Your task to perform on an android device: turn off picture-in-picture Image 0: 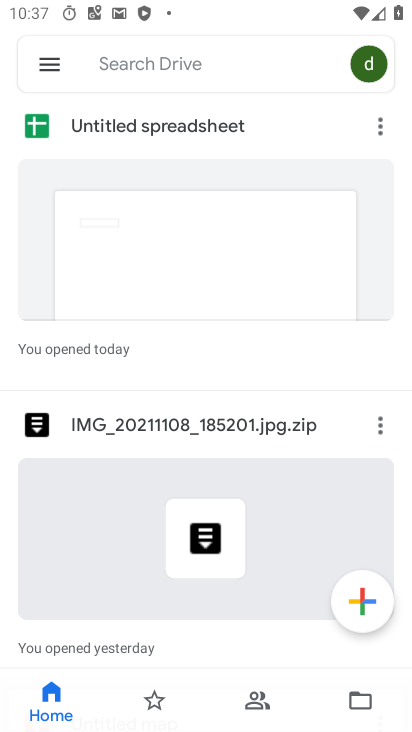
Step 0: press back button
Your task to perform on an android device: turn off picture-in-picture Image 1: 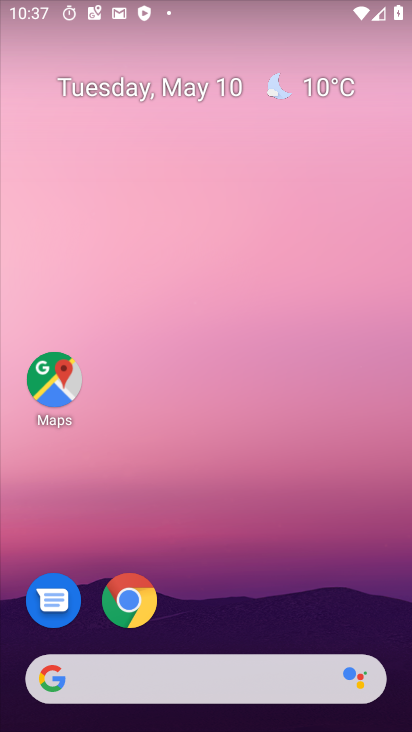
Step 1: drag from (244, 558) to (233, 65)
Your task to perform on an android device: turn off picture-in-picture Image 2: 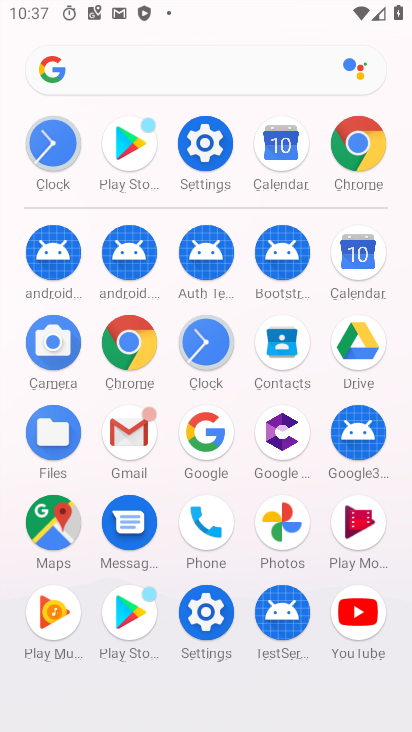
Step 2: drag from (16, 559) to (16, 277)
Your task to perform on an android device: turn off picture-in-picture Image 3: 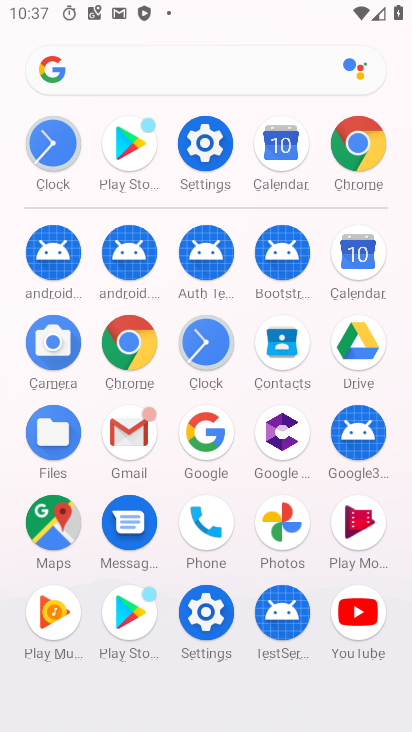
Step 3: click (206, 609)
Your task to perform on an android device: turn off picture-in-picture Image 4: 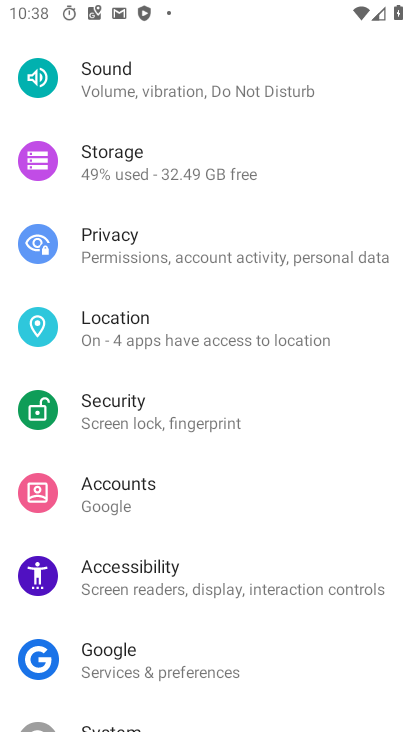
Step 4: drag from (292, 483) to (287, 107)
Your task to perform on an android device: turn off picture-in-picture Image 5: 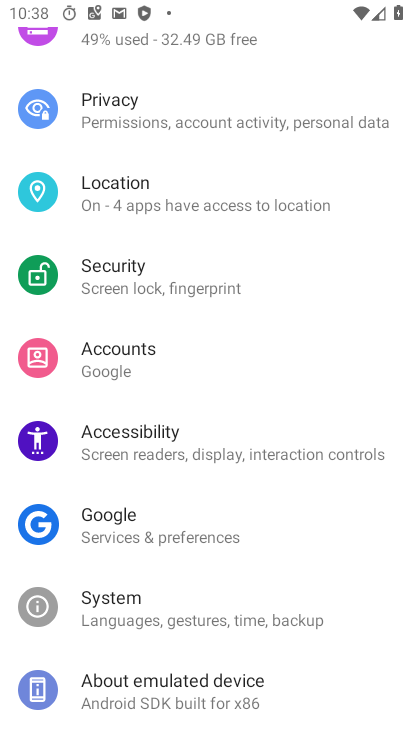
Step 5: drag from (251, 179) to (250, 600)
Your task to perform on an android device: turn off picture-in-picture Image 6: 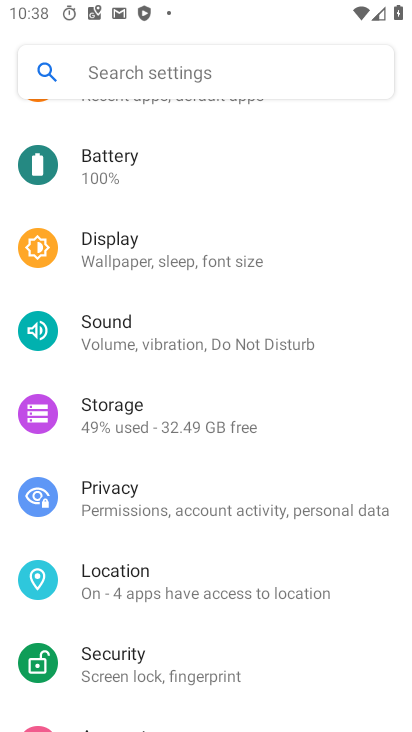
Step 6: drag from (226, 171) to (238, 485)
Your task to perform on an android device: turn off picture-in-picture Image 7: 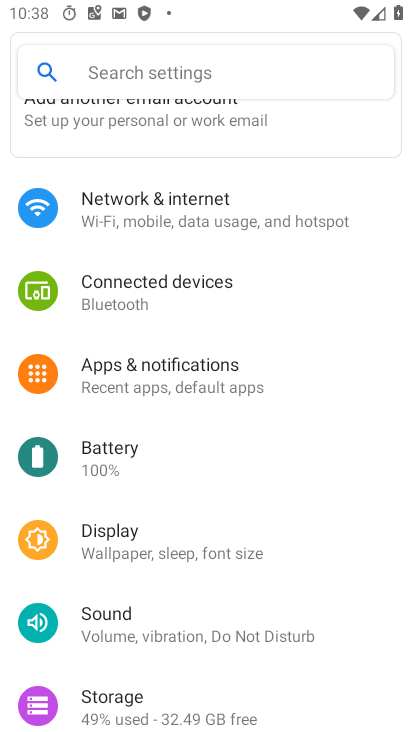
Step 7: drag from (235, 517) to (261, 124)
Your task to perform on an android device: turn off picture-in-picture Image 8: 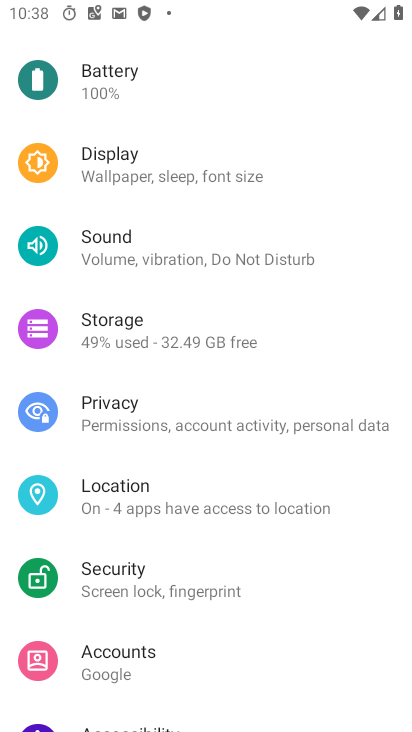
Step 8: drag from (277, 534) to (278, 62)
Your task to perform on an android device: turn off picture-in-picture Image 9: 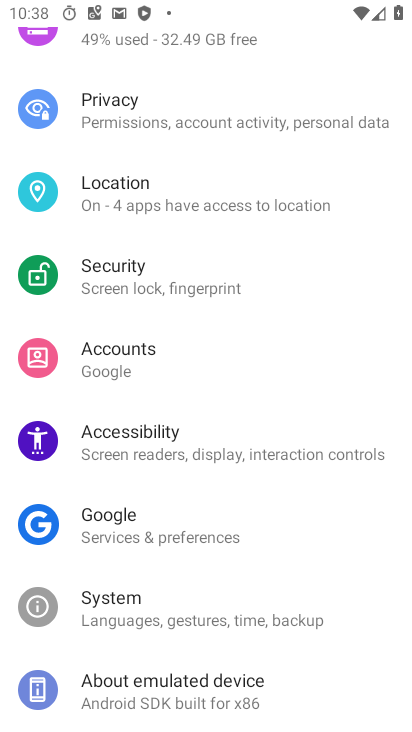
Step 9: drag from (230, 157) to (235, 604)
Your task to perform on an android device: turn off picture-in-picture Image 10: 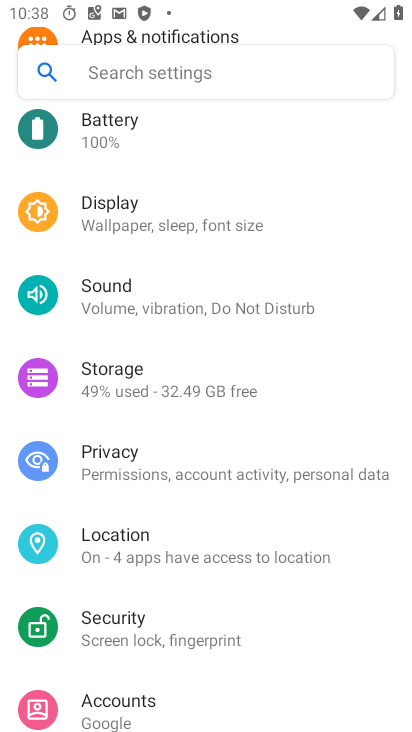
Step 10: drag from (208, 220) to (213, 599)
Your task to perform on an android device: turn off picture-in-picture Image 11: 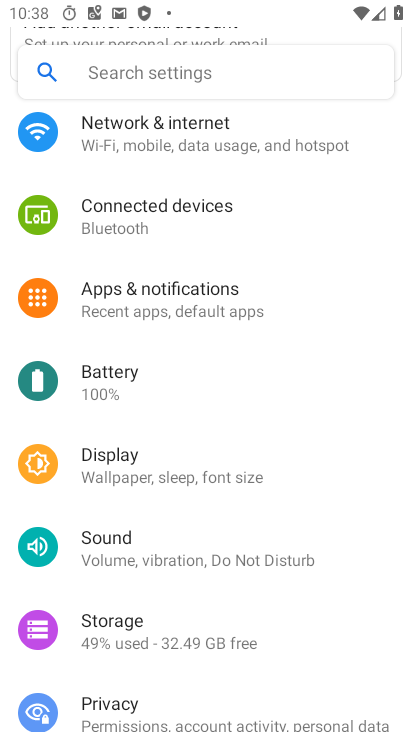
Step 11: click (196, 292)
Your task to perform on an android device: turn off picture-in-picture Image 12: 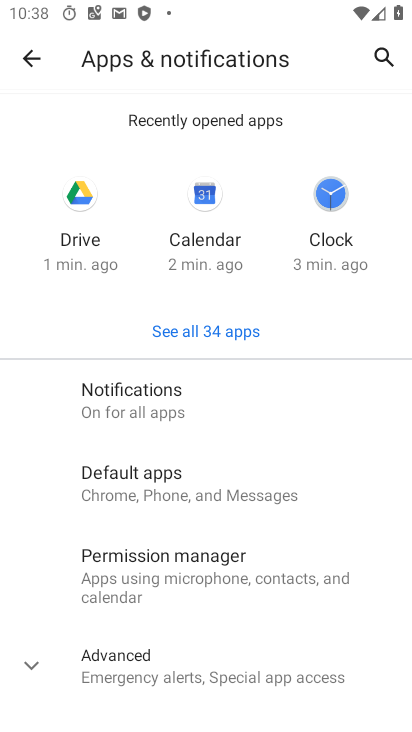
Step 12: click (52, 659)
Your task to perform on an android device: turn off picture-in-picture Image 13: 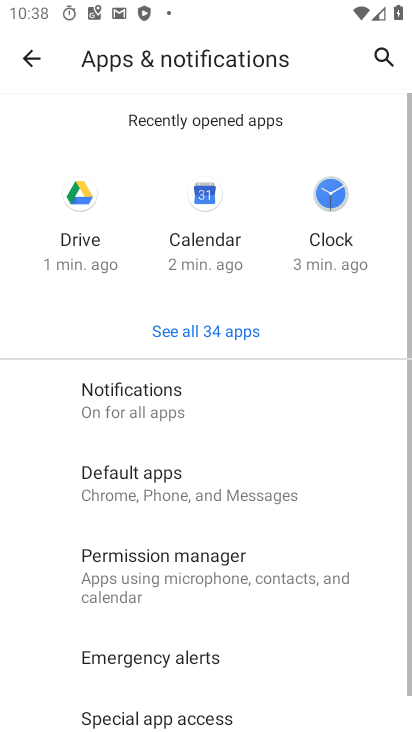
Step 13: drag from (331, 632) to (320, 250)
Your task to perform on an android device: turn off picture-in-picture Image 14: 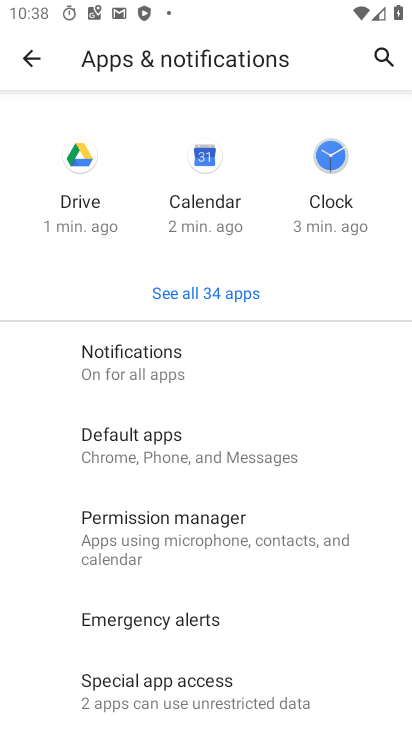
Step 14: click (157, 688)
Your task to perform on an android device: turn off picture-in-picture Image 15: 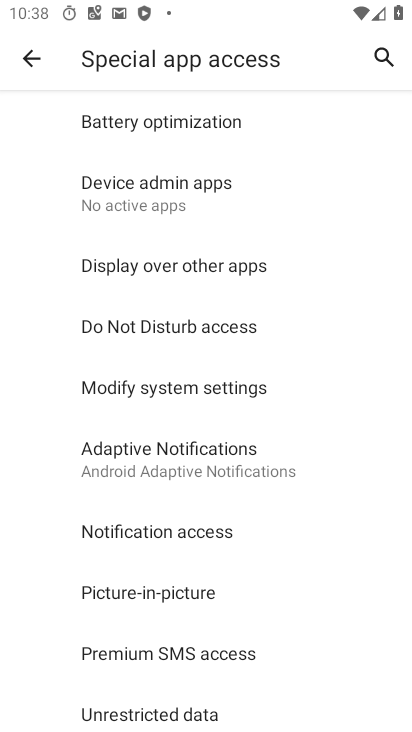
Step 15: click (199, 591)
Your task to perform on an android device: turn off picture-in-picture Image 16: 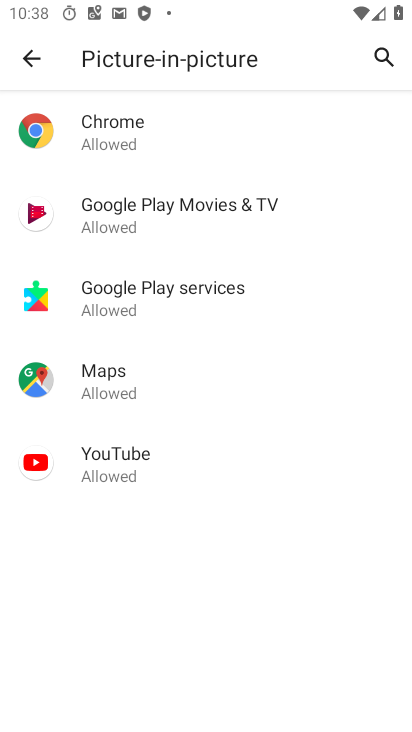
Step 16: click (167, 126)
Your task to perform on an android device: turn off picture-in-picture Image 17: 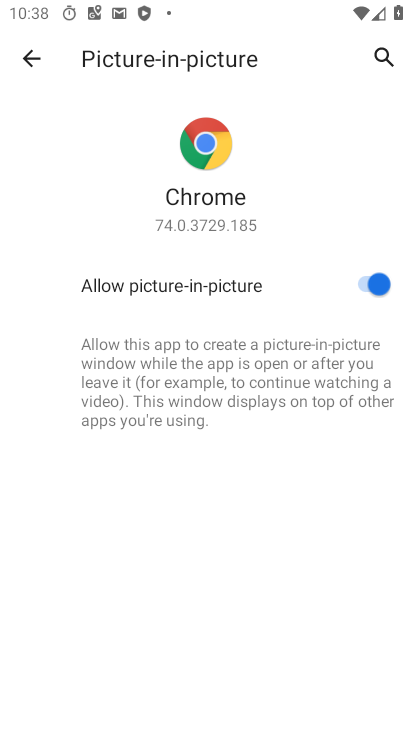
Step 17: click (368, 289)
Your task to perform on an android device: turn off picture-in-picture Image 18: 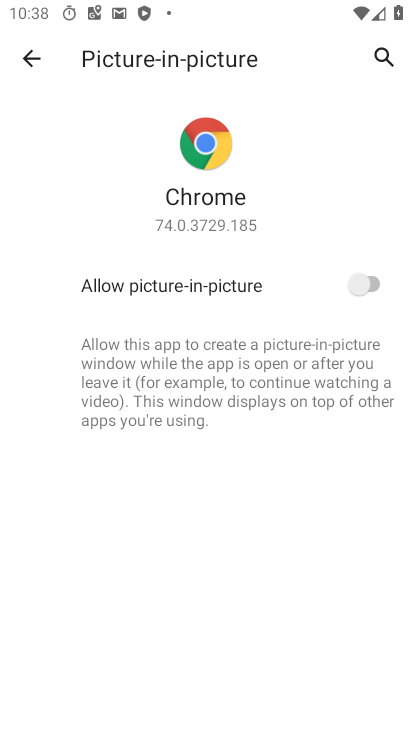
Step 18: click (38, 54)
Your task to perform on an android device: turn off picture-in-picture Image 19: 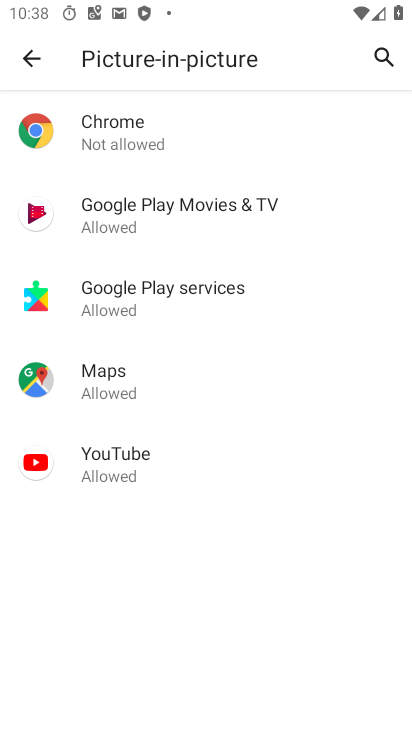
Step 19: click (123, 210)
Your task to perform on an android device: turn off picture-in-picture Image 20: 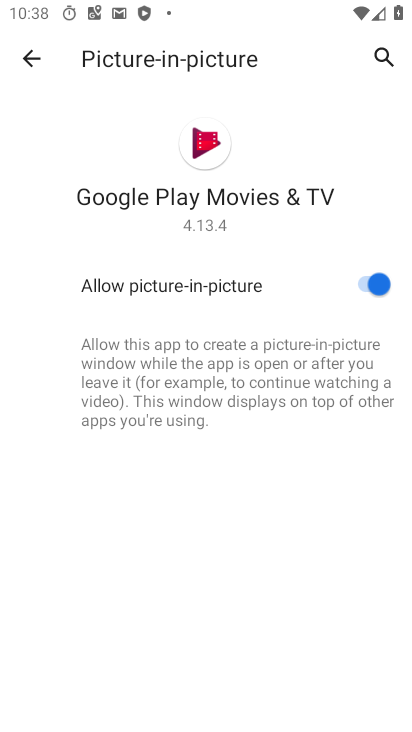
Step 20: click (362, 290)
Your task to perform on an android device: turn off picture-in-picture Image 21: 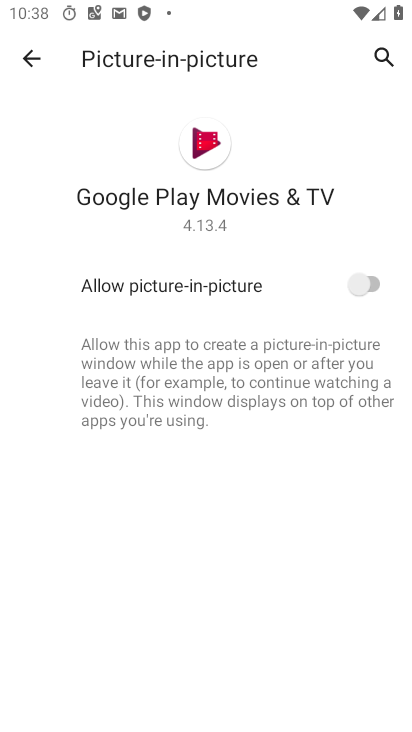
Step 21: click (38, 63)
Your task to perform on an android device: turn off picture-in-picture Image 22: 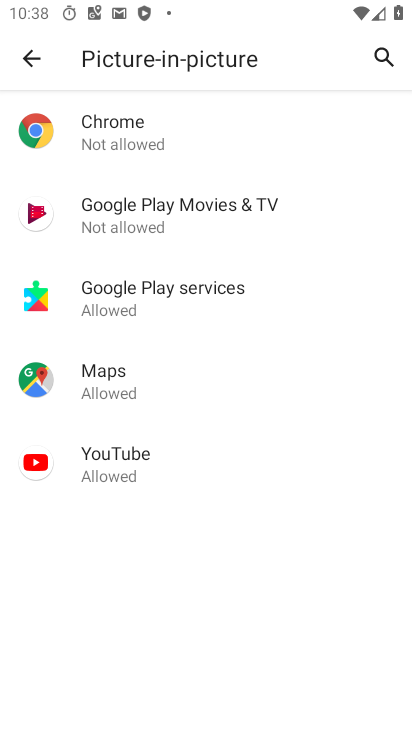
Step 22: click (127, 287)
Your task to perform on an android device: turn off picture-in-picture Image 23: 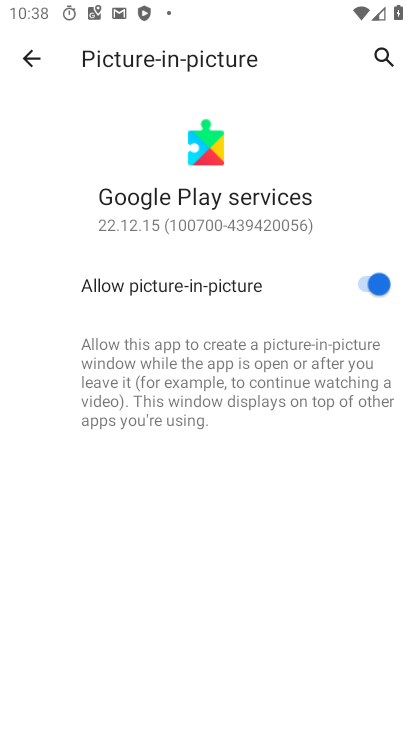
Step 23: click (367, 282)
Your task to perform on an android device: turn off picture-in-picture Image 24: 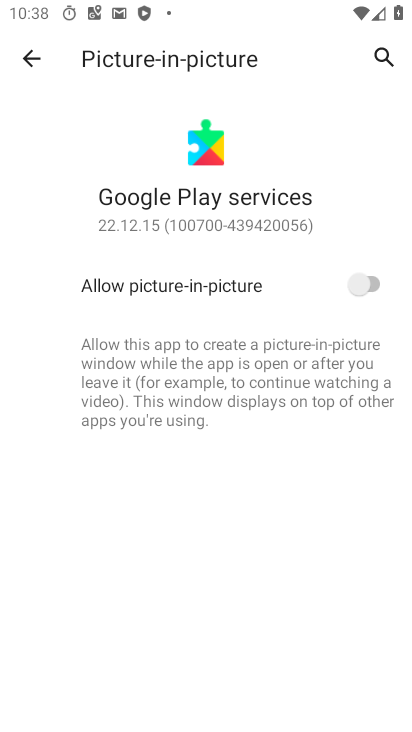
Step 24: click (27, 60)
Your task to perform on an android device: turn off picture-in-picture Image 25: 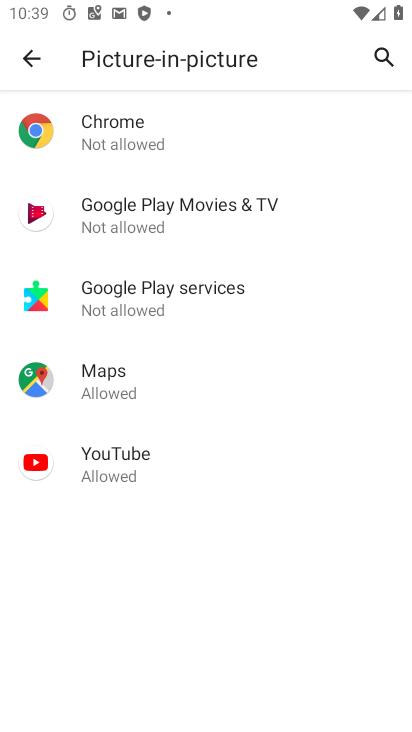
Step 25: click (101, 406)
Your task to perform on an android device: turn off picture-in-picture Image 26: 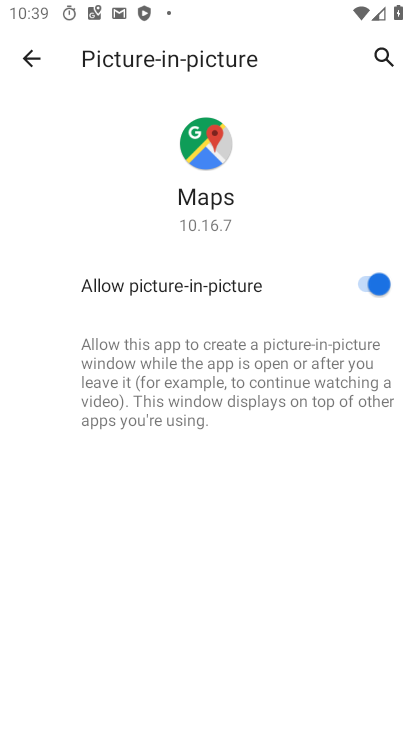
Step 26: click (380, 279)
Your task to perform on an android device: turn off picture-in-picture Image 27: 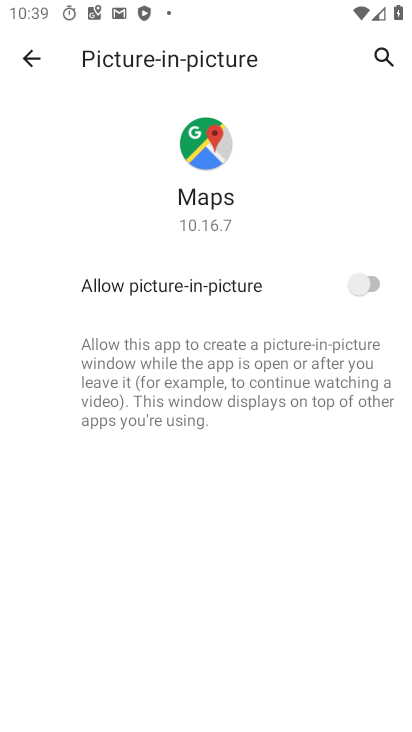
Step 27: click (30, 51)
Your task to perform on an android device: turn off picture-in-picture Image 28: 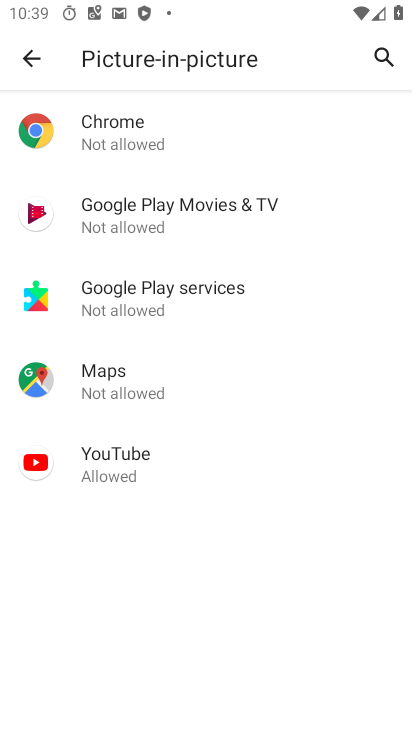
Step 28: click (113, 481)
Your task to perform on an android device: turn off picture-in-picture Image 29: 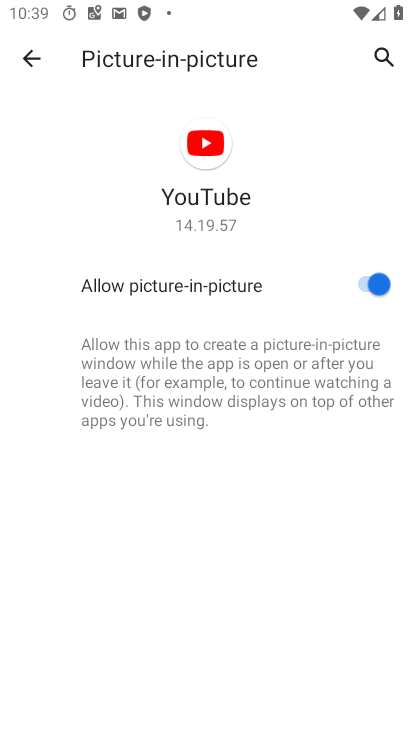
Step 29: click (368, 288)
Your task to perform on an android device: turn off picture-in-picture Image 30: 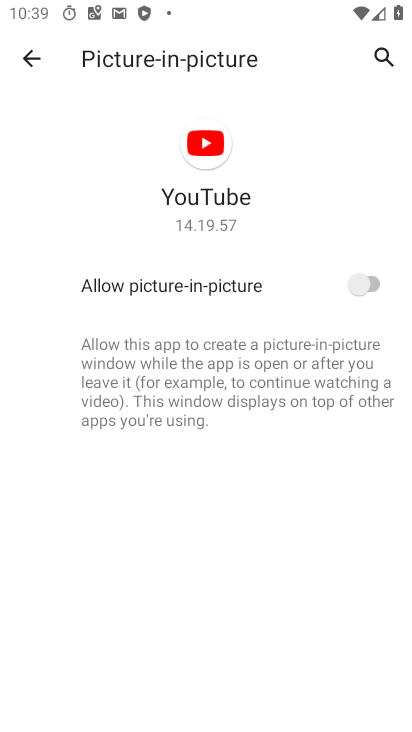
Step 30: click (36, 51)
Your task to perform on an android device: turn off picture-in-picture Image 31: 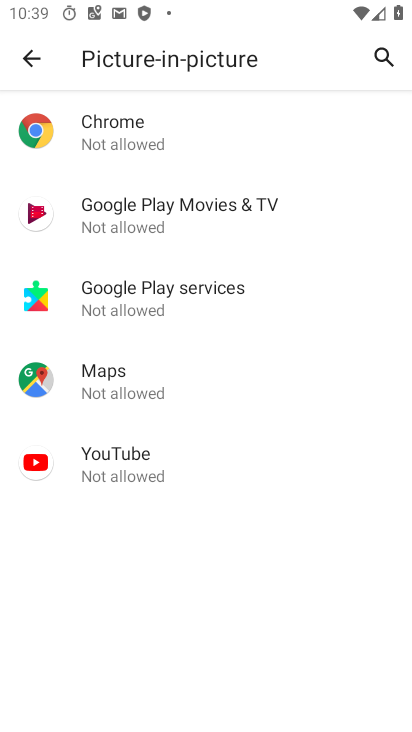
Step 31: task complete